Your task to perform on an android device: Add lg ultragear to the cart on amazon.com Image 0: 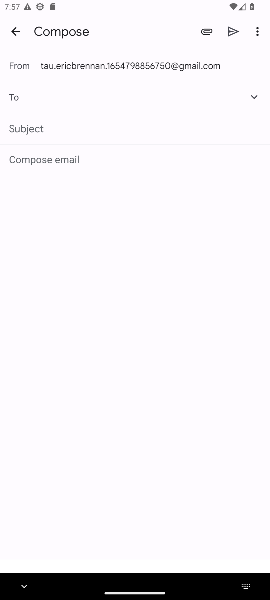
Step 0: press home button
Your task to perform on an android device: Add lg ultragear to the cart on amazon.com Image 1: 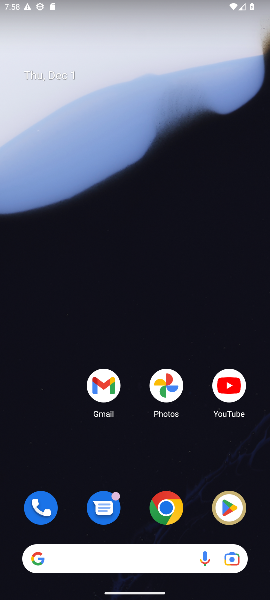
Step 1: click (165, 506)
Your task to perform on an android device: Add lg ultragear to the cart on amazon.com Image 2: 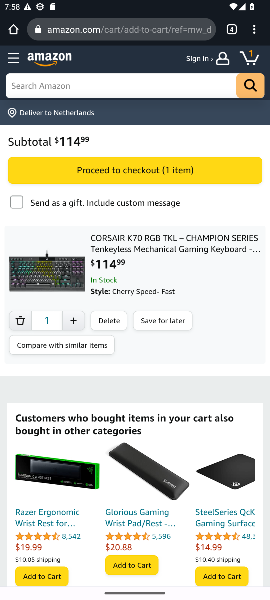
Step 2: click (96, 91)
Your task to perform on an android device: Add lg ultragear to the cart on amazon.com Image 3: 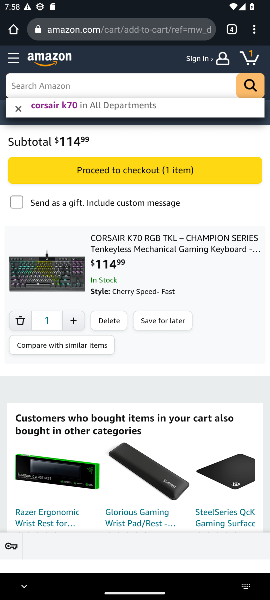
Step 3: type "lg ultragear"
Your task to perform on an android device: Add lg ultragear to the cart on amazon.com Image 4: 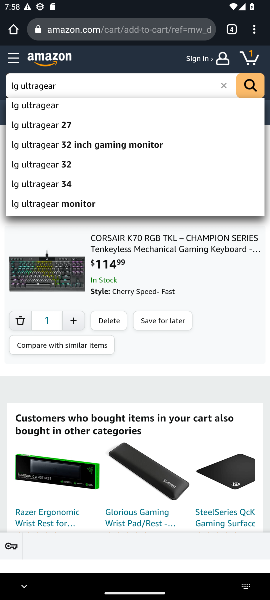
Step 4: click (247, 86)
Your task to perform on an android device: Add lg ultragear to the cart on amazon.com Image 5: 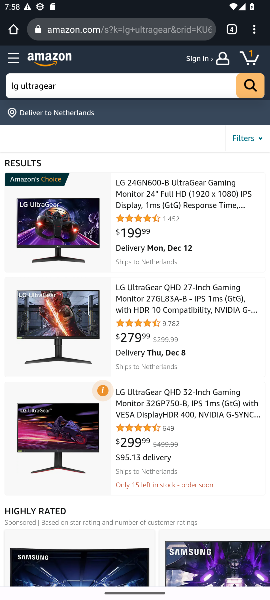
Step 5: click (180, 193)
Your task to perform on an android device: Add lg ultragear to the cart on amazon.com Image 6: 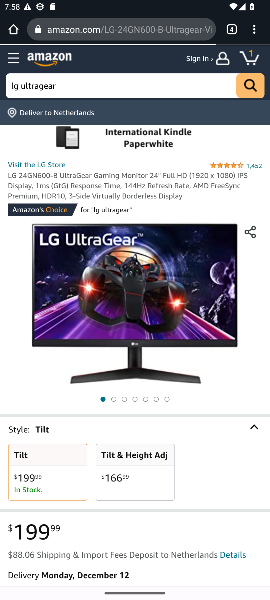
Step 6: drag from (156, 546) to (167, 270)
Your task to perform on an android device: Add lg ultragear to the cart on amazon.com Image 7: 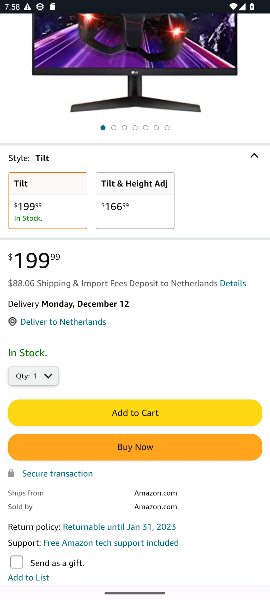
Step 7: click (131, 416)
Your task to perform on an android device: Add lg ultragear to the cart on amazon.com Image 8: 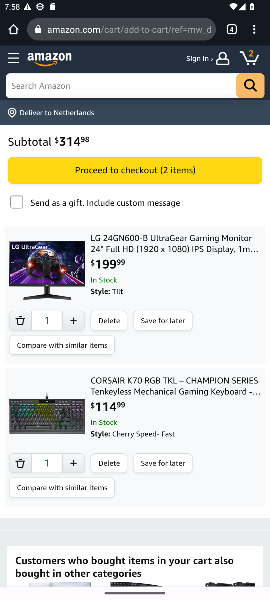
Step 8: task complete